Your task to perform on an android device: check google app version Image 0: 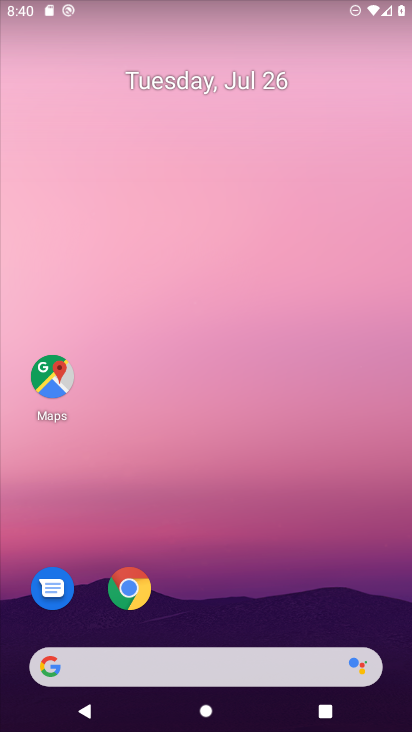
Step 0: drag from (235, 559) to (241, 89)
Your task to perform on an android device: check google app version Image 1: 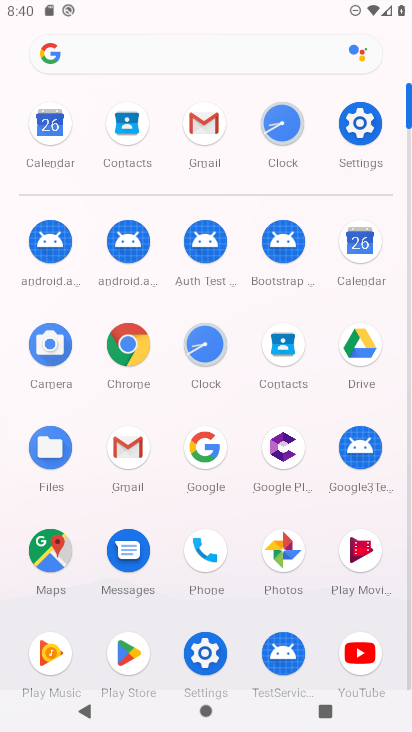
Step 1: click (211, 456)
Your task to perform on an android device: check google app version Image 2: 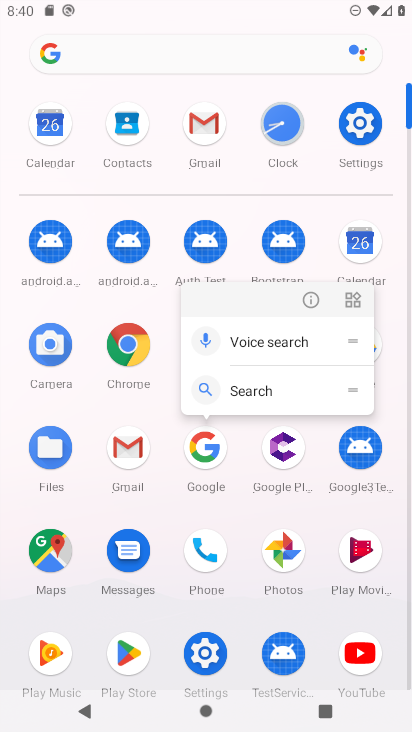
Step 2: click (309, 300)
Your task to perform on an android device: check google app version Image 3: 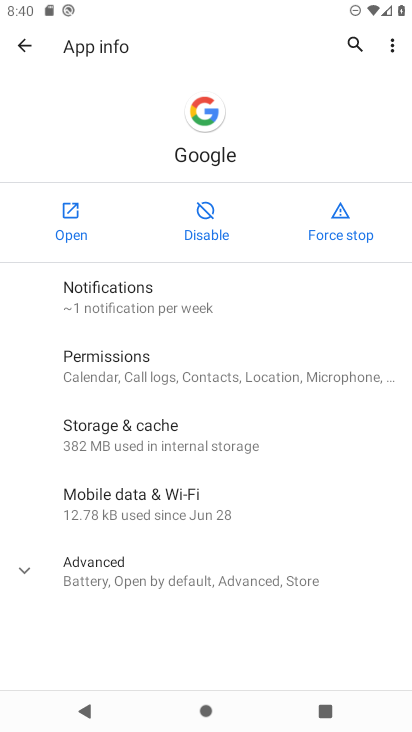
Step 3: drag from (158, 571) to (156, 323)
Your task to perform on an android device: check google app version Image 4: 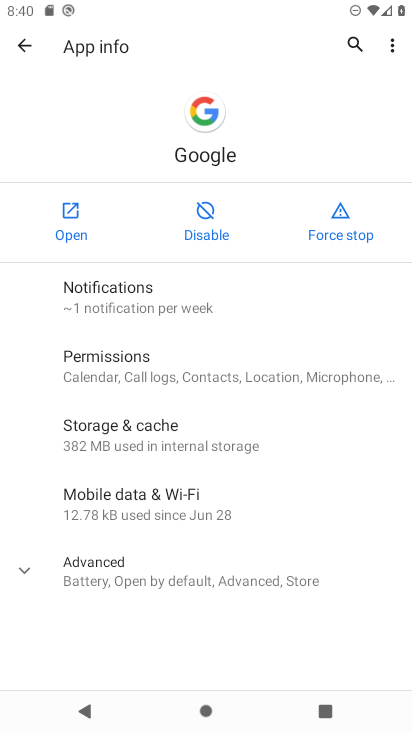
Step 4: click (24, 576)
Your task to perform on an android device: check google app version Image 5: 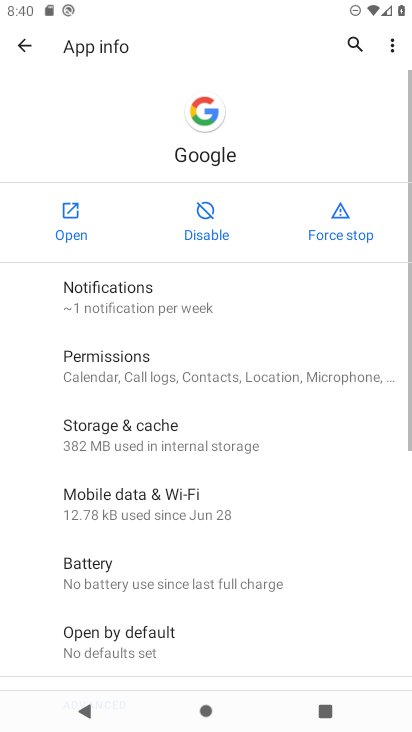
Step 5: task complete